Your task to perform on an android device: check android version Image 0: 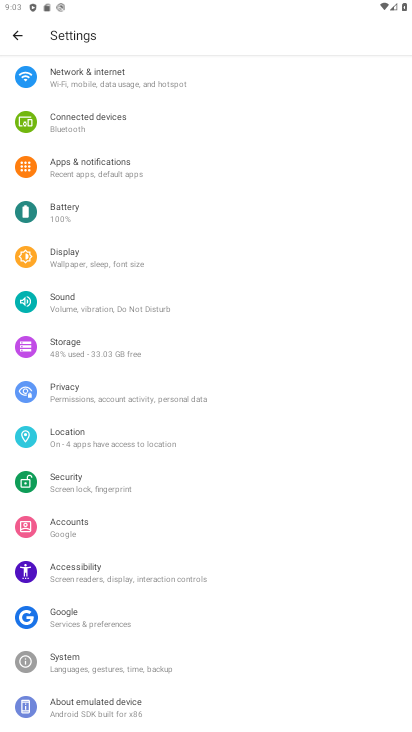
Step 0: click (65, 685)
Your task to perform on an android device: check android version Image 1: 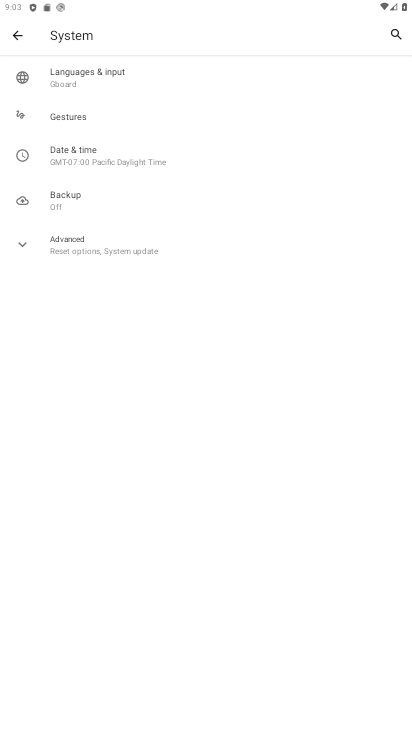
Step 1: click (10, 36)
Your task to perform on an android device: check android version Image 2: 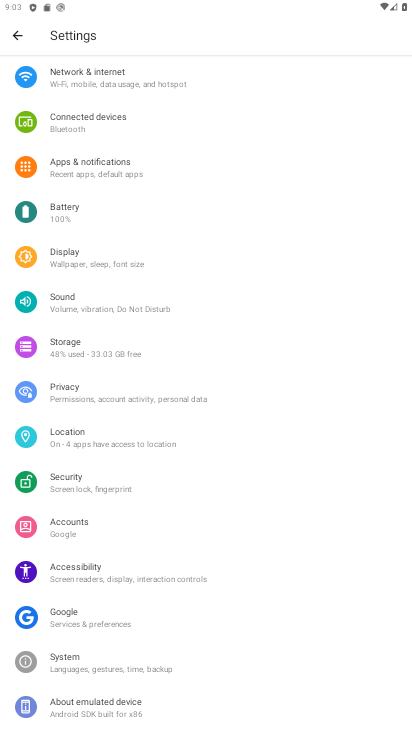
Step 2: click (80, 704)
Your task to perform on an android device: check android version Image 3: 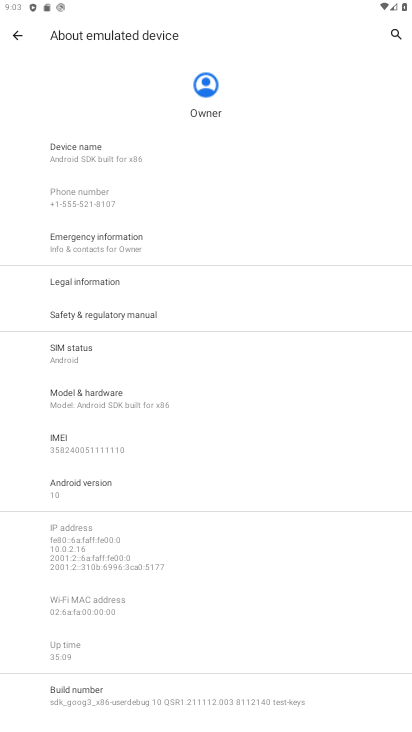
Step 3: click (103, 488)
Your task to perform on an android device: check android version Image 4: 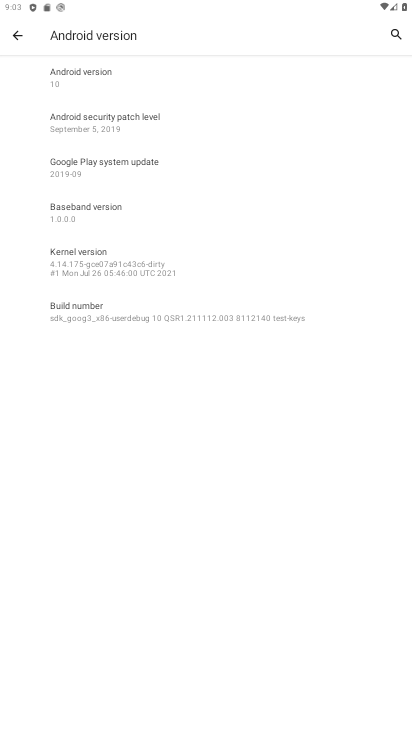
Step 4: task complete